Your task to perform on an android device: turn notification dots off Image 0: 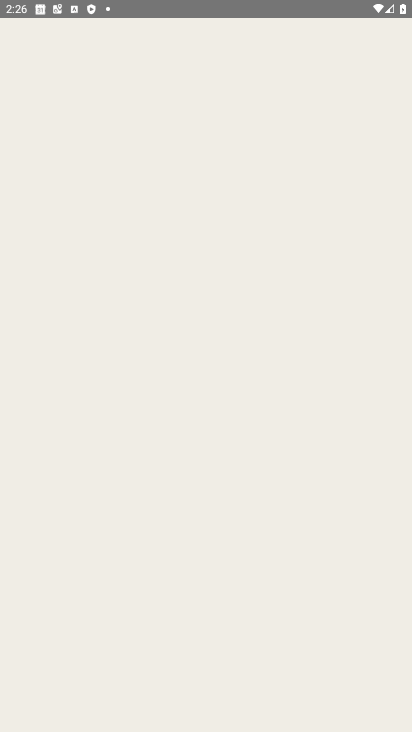
Step 0: press home button
Your task to perform on an android device: turn notification dots off Image 1: 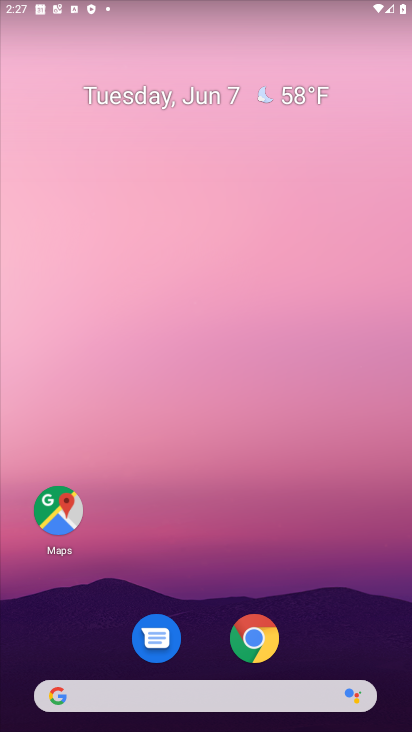
Step 1: drag from (186, 605) to (252, 171)
Your task to perform on an android device: turn notification dots off Image 2: 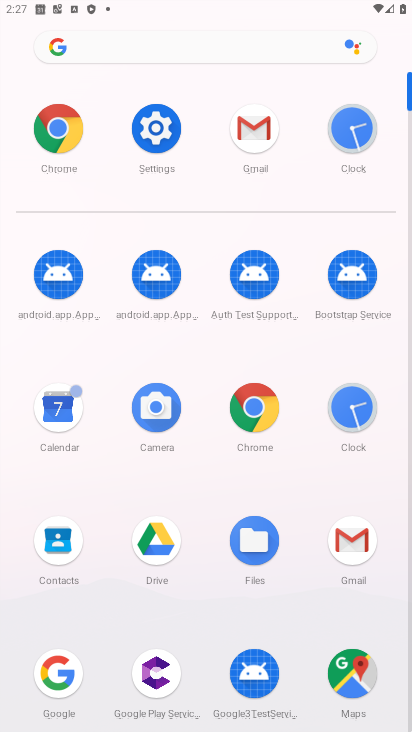
Step 2: click (153, 119)
Your task to perform on an android device: turn notification dots off Image 3: 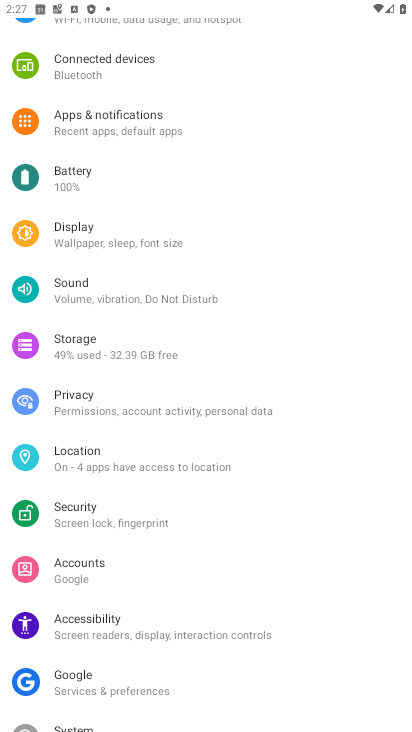
Step 3: click (131, 132)
Your task to perform on an android device: turn notification dots off Image 4: 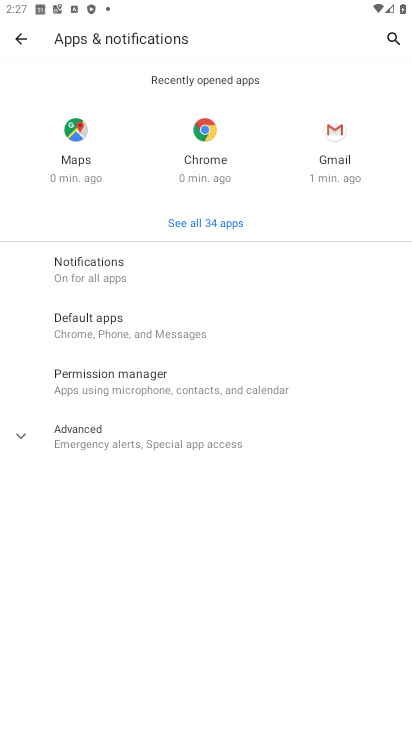
Step 4: click (99, 281)
Your task to perform on an android device: turn notification dots off Image 5: 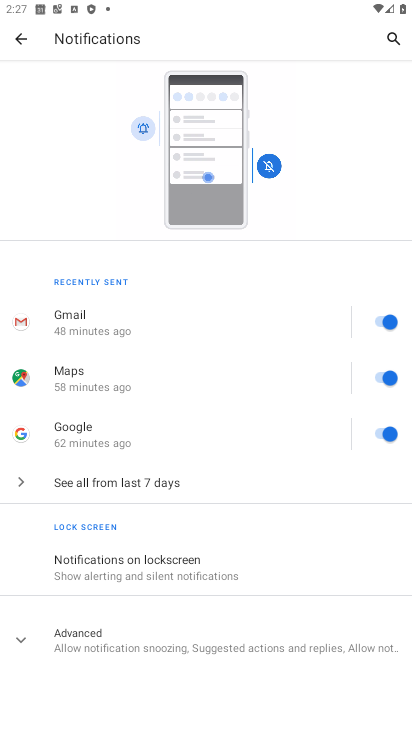
Step 5: drag from (138, 549) to (210, 208)
Your task to perform on an android device: turn notification dots off Image 6: 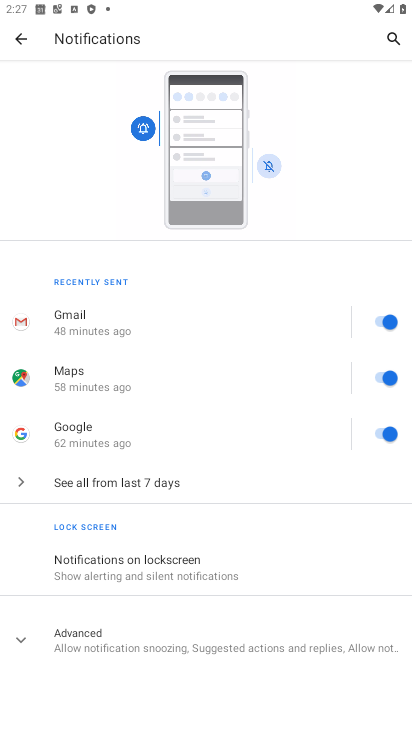
Step 6: click (109, 622)
Your task to perform on an android device: turn notification dots off Image 7: 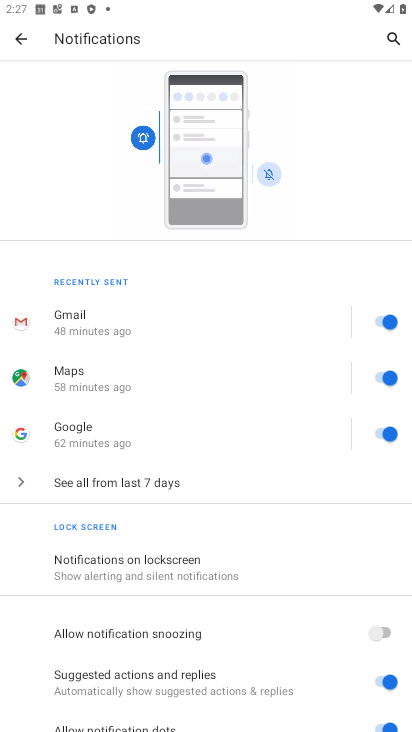
Step 7: task complete